Your task to perform on an android device: Open Wikipedia Image 0: 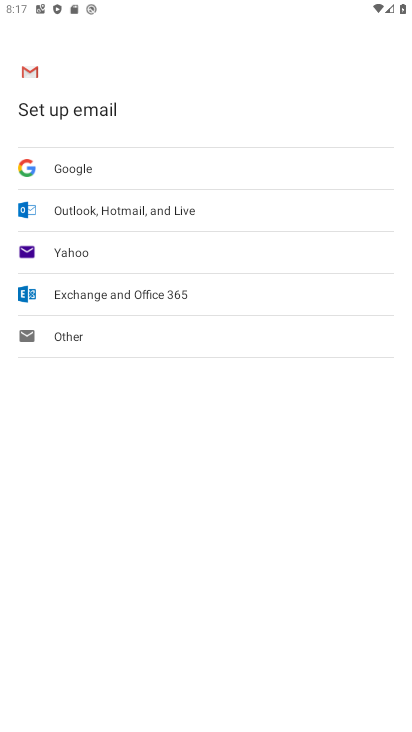
Step 0: press home button
Your task to perform on an android device: Open Wikipedia Image 1: 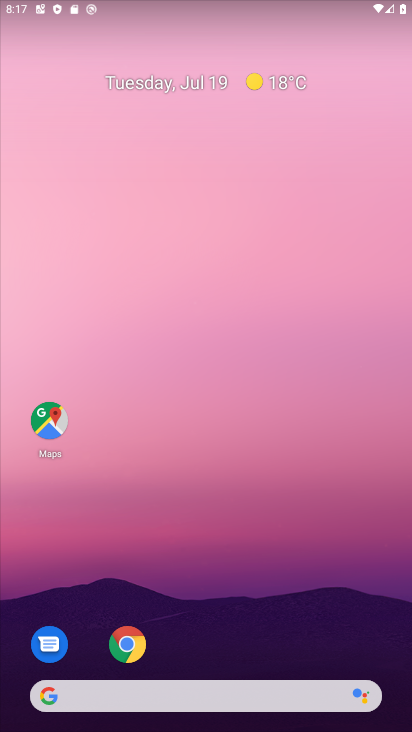
Step 1: click (125, 647)
Your task to perform on an android device: Open Wikipedia Image 2: 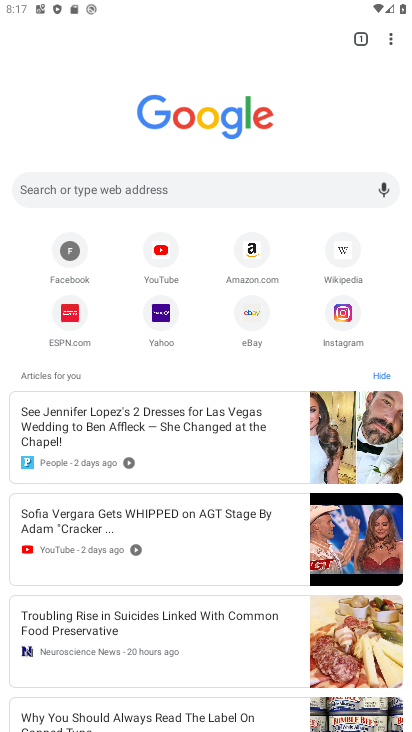
Step 2: click (344, 249)
Your task to perform on an android device: Open Wikipedia Image 3: 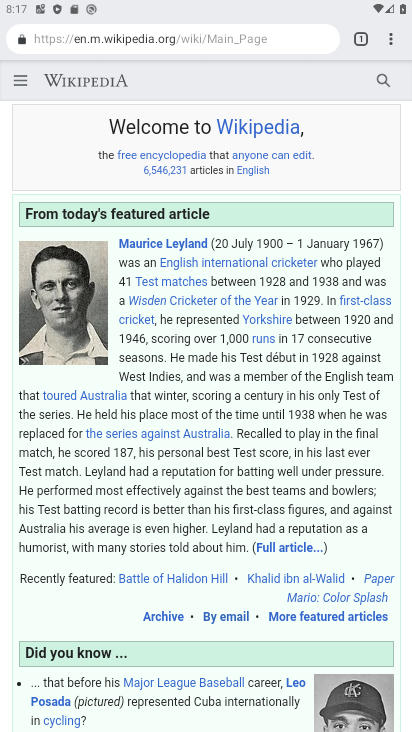
Step 3: task complete